Your task to perform on an android device: check battery use Image 0: 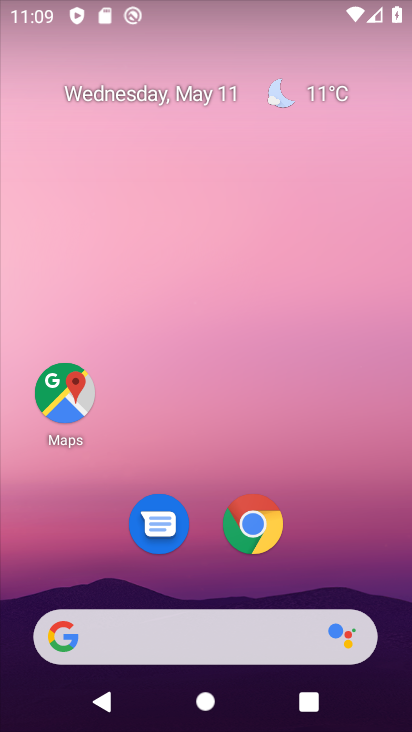
Step 0: drag from (362, 527) to (331, 80)
Your task to perform on an android device: check battery use Image 1: 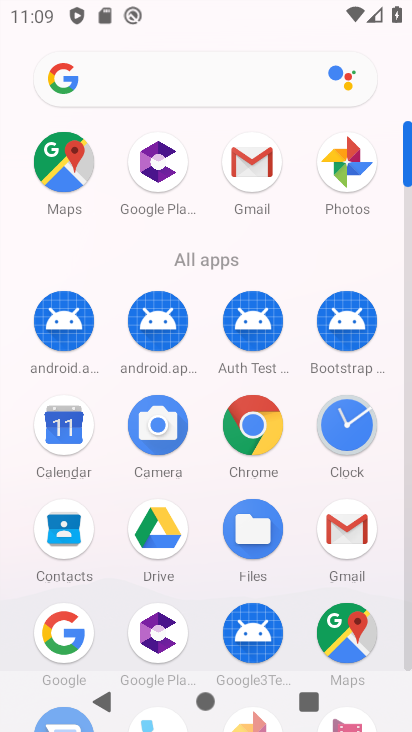
Step 1: drag from (205, 496) to (212, 214)
Your task to perform on an android device: check battery use Image 2: 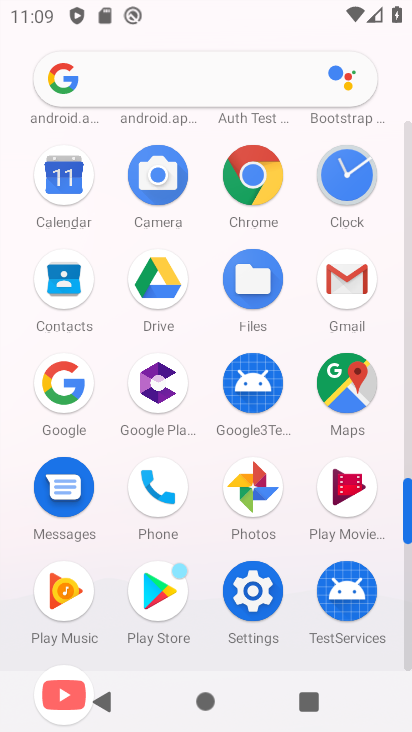
Step 2: click (265, 586)
Your task to perform on an android device: check battery use Image 3: 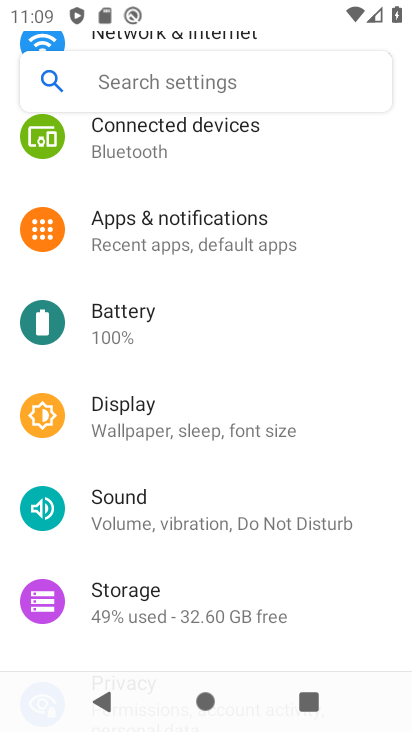
Step 3: click (221, 319)
Your task to perform on an android device: check battery use Image 4: 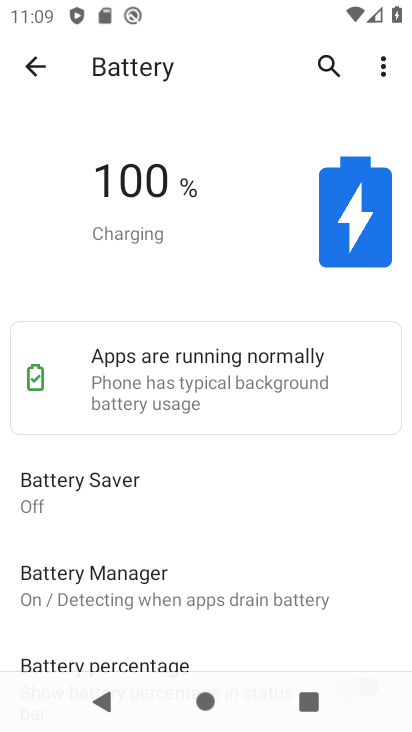
Step 4: click (373, 63)
Your task to perform on an android device: check battery use Image 5: 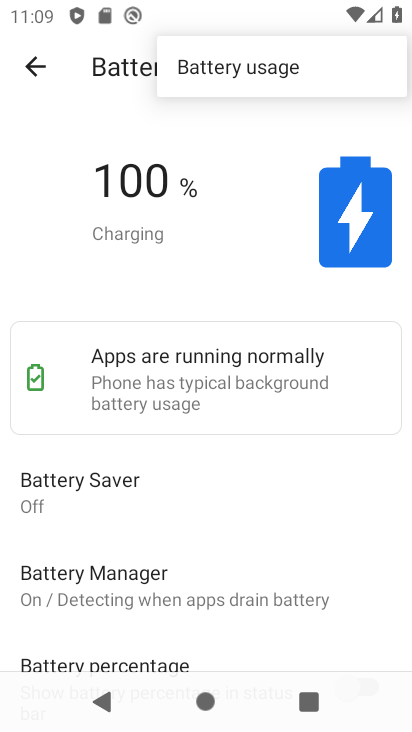
Step 5: click (301, 60)
Your task to perform on an android device: check battery use Image 6: 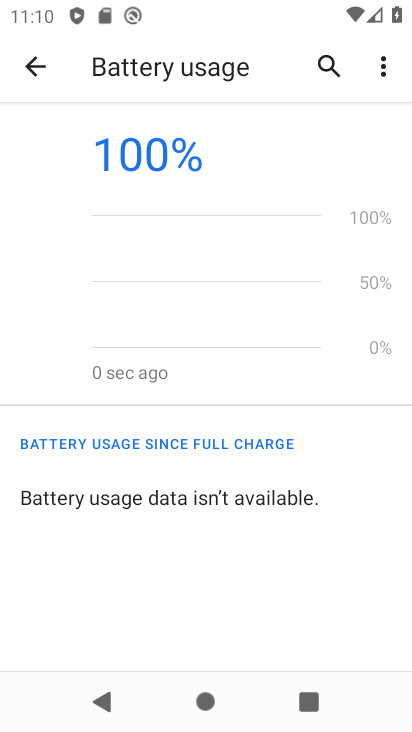
Step 6: task complete